Your task to perform on an android device: See recent photos Image 0: 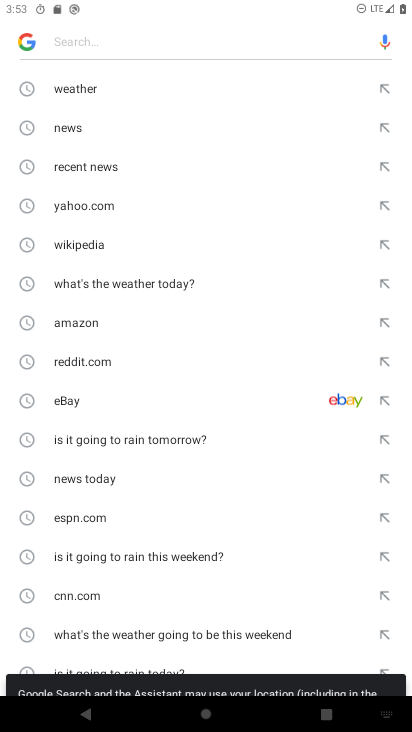
Step 0: press home button
Your task to perform on an android device: See recent photos Image 1: 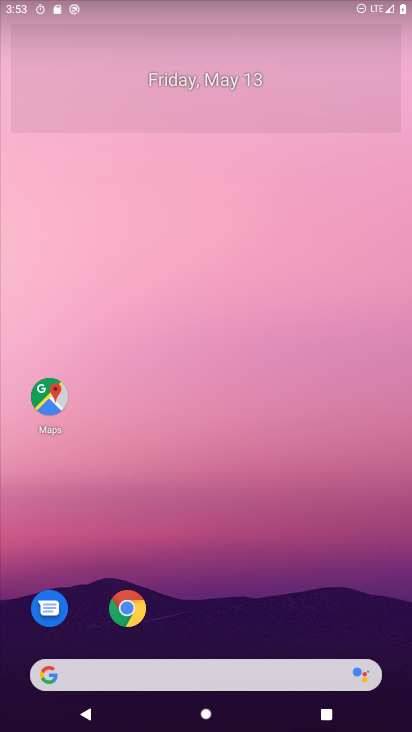
Step 1: click (185, 9)
Your task to perform on an android device: See recent photos Image 2: 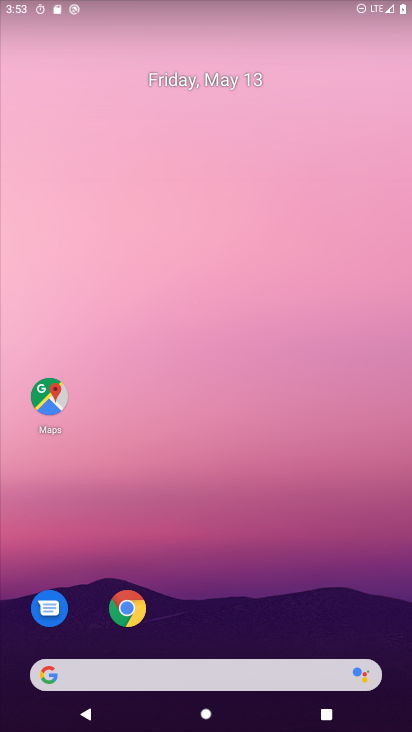
Step 2: drag from (233, 611) to (188, 224)
Your task to perform on an android device: See recent photos Image 3: 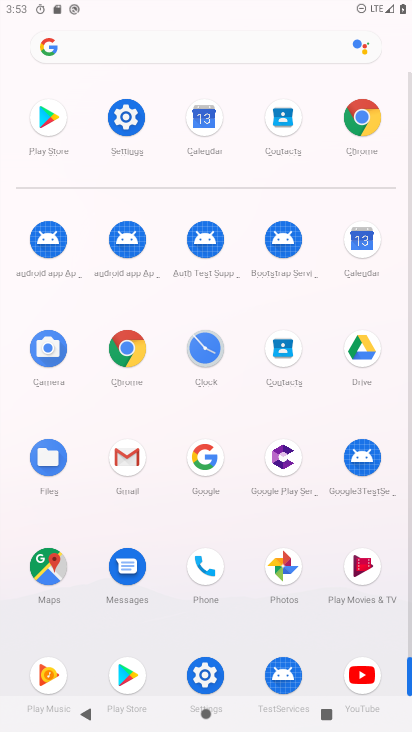
Step 3: click (282, 549)
Your task to perform on an android device: See recent photos Image 4: 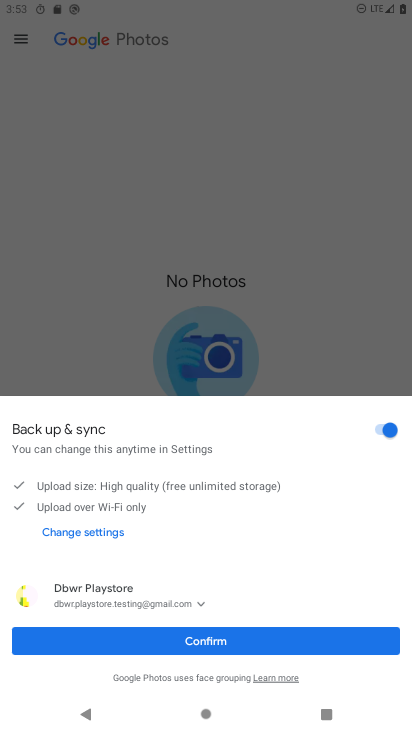
Step 4: click (240, 641)
Your task to perform on an android device: See recent photos Image 5: 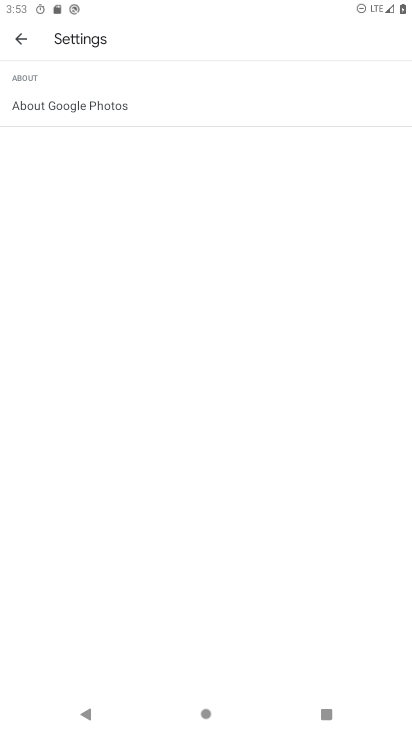
Step 5: click (19, 37)
Your task to perform on an android device: See recent photos Image 6: 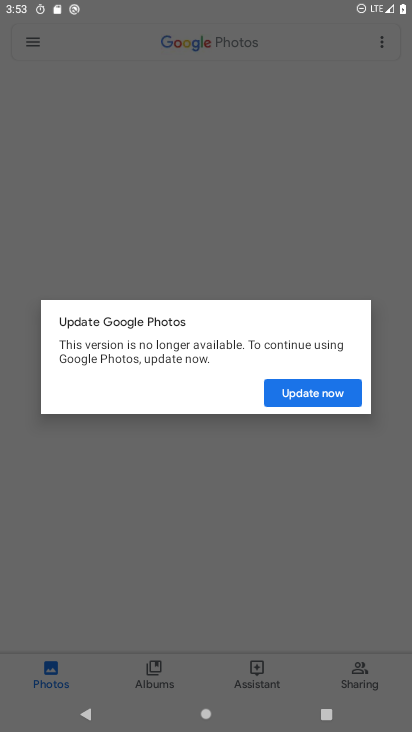
Step 6: click (289, 394)
Your task to perform on an android device: See recent photos Image 7: 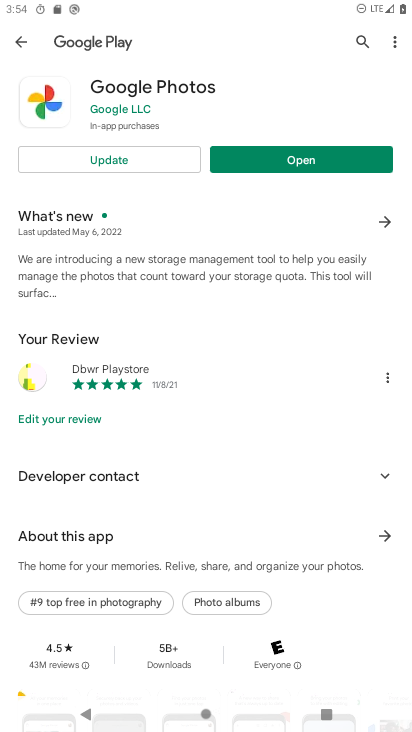
Step 7: click (120, 161)
Your task to perform on an android device: See recent photos Image 8: 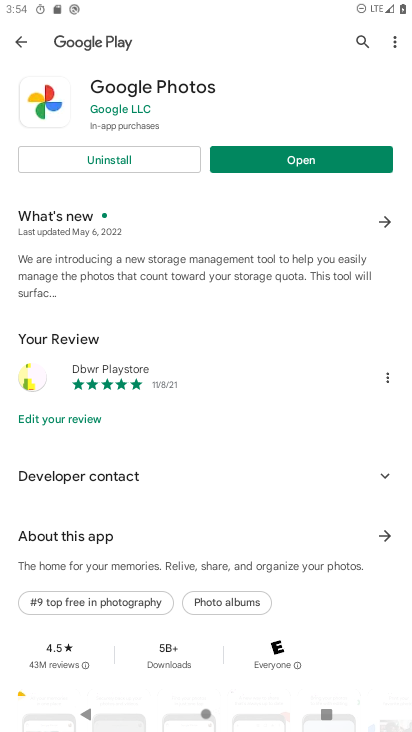
Step 8: click (298, 162)
Your task to perform on an android device: See recent photos Image 9: 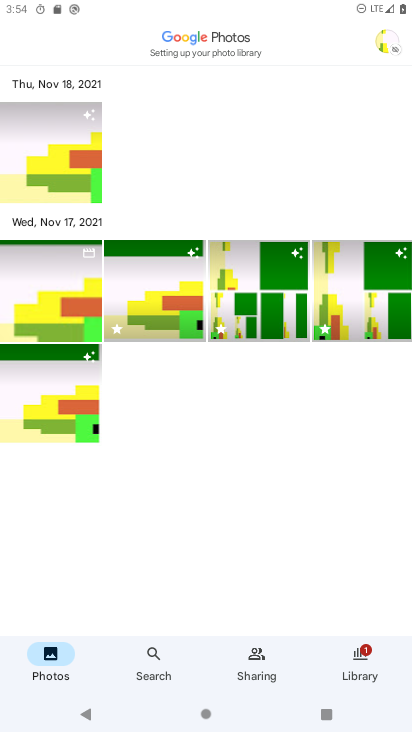
Step 9: click (47, 664)
Your task to perform on an android device: See recent photos Image 10: 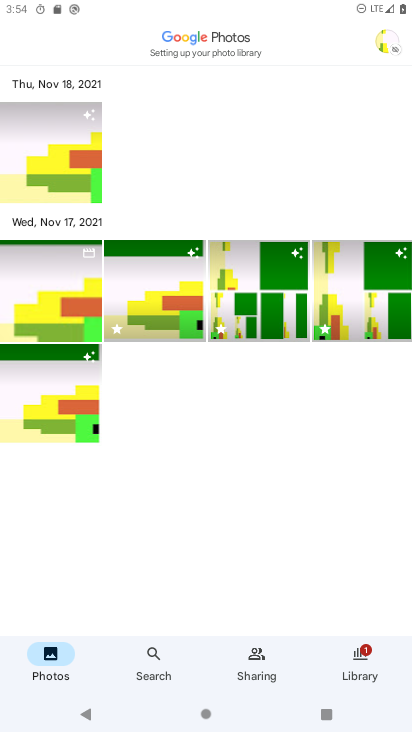
Step 10: task complete